Your task to perform on an android device: find which apps use the phone's location Image 0: 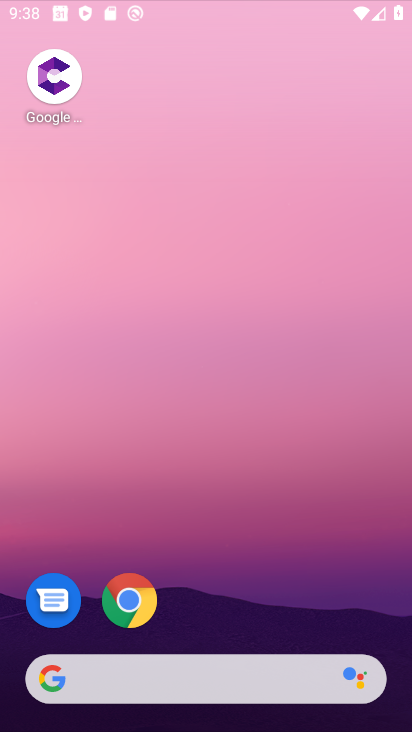
Step 0: click (319, 55)
Your task to perform on an android device: find which apps use the phone's location Image 1: 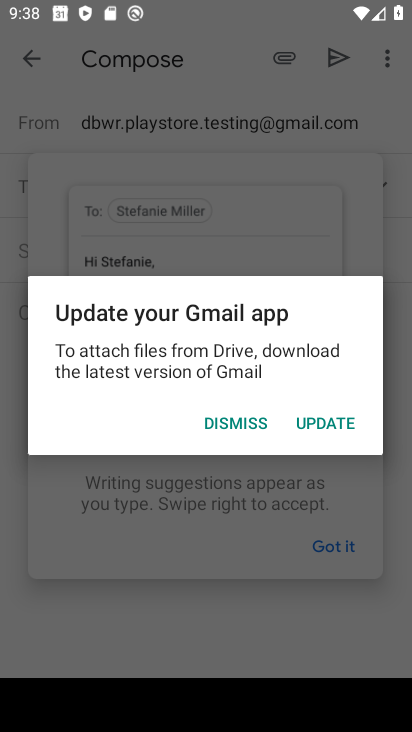
Step 1: press home button
Your task to perform on an android device: find which apps use the phone's location Image 2: 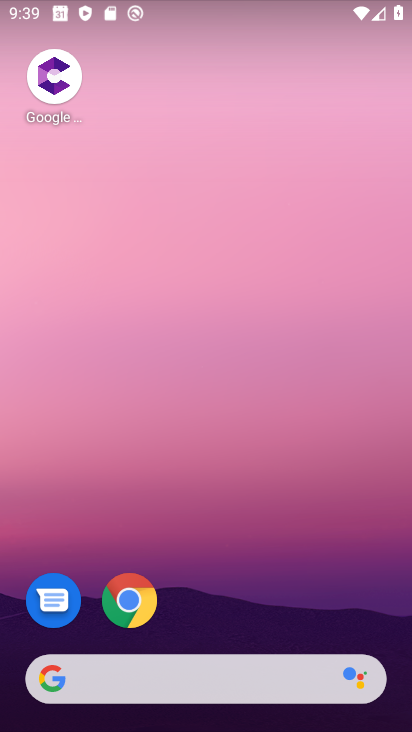
Step 2: drag from (322, 540) to (349, 28)
Your task to perform on an android device: find which apps use the phone's location Image 3: 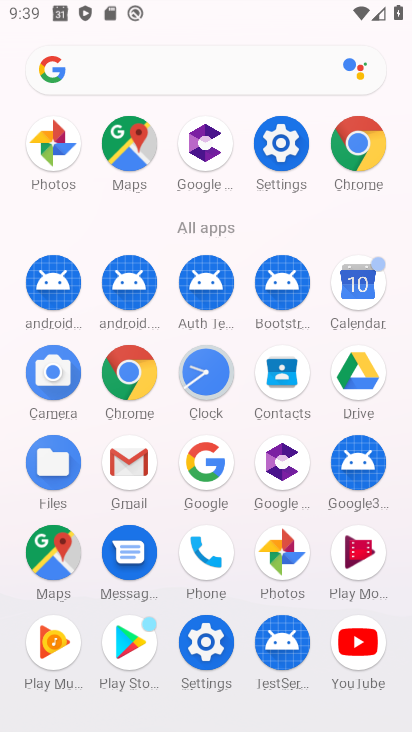
Step 3: click (274, 167)
Your task to perform on an android device: find which apps use the phone's location Image 4: 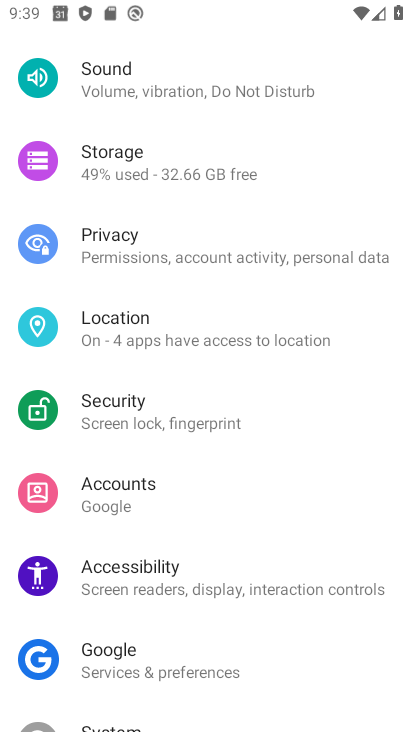
Step 4: click (135, 348)
Your task to perform on an android device: find which apps use the phone's location Image 5: 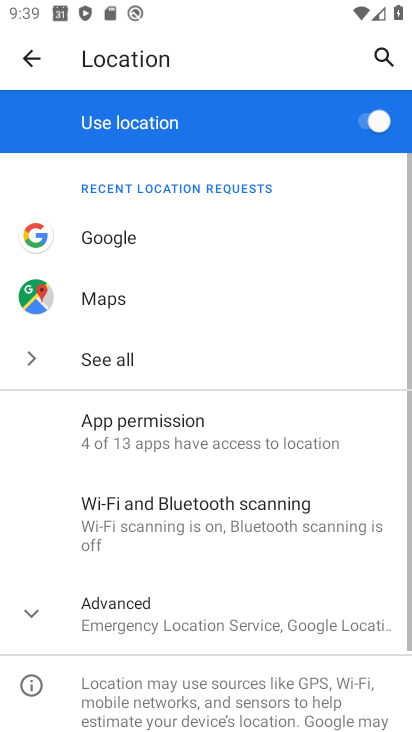
Step 5: click (179, 446)
Your task to perform on an android device: find which apps use the phone's location Image 6: 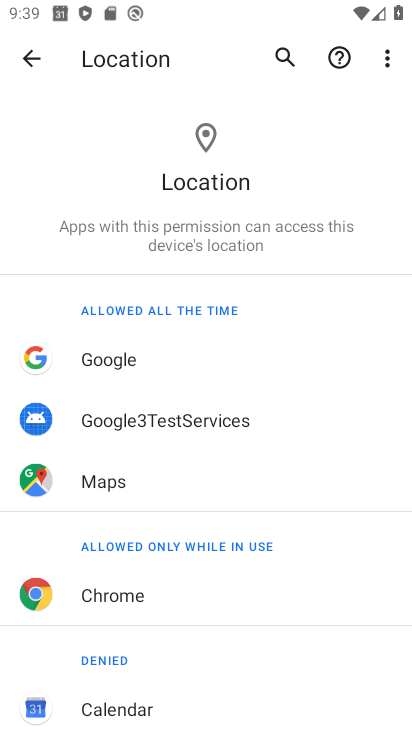
Step 6: task complete